Your task to perform on an android device: turn off airplane mode Image 0: 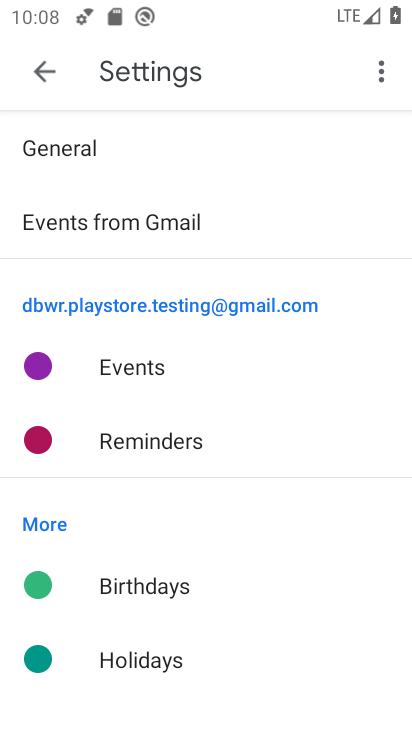
Step 0: press home button
Your task to perform on an android device: turn off airplane mode Image 1: 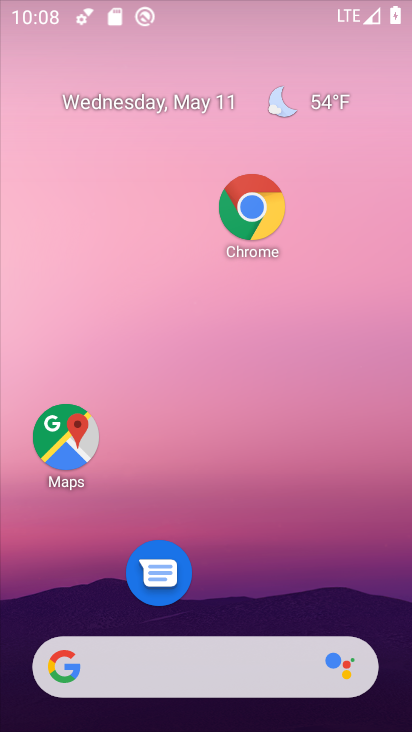
Step 1: drag from (178, 674) to (186, 0)
Your task to perform on an android device: turn off airplane mode Image 2: 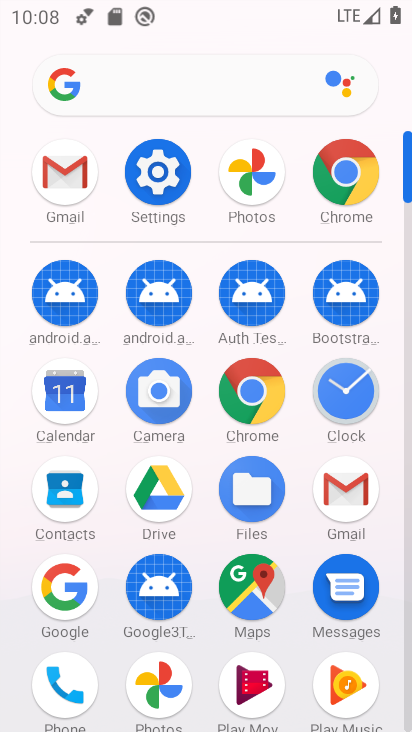
Step 2: click (162, 160)
Your task to perform on an android device: turn off airplane mode Image 3: 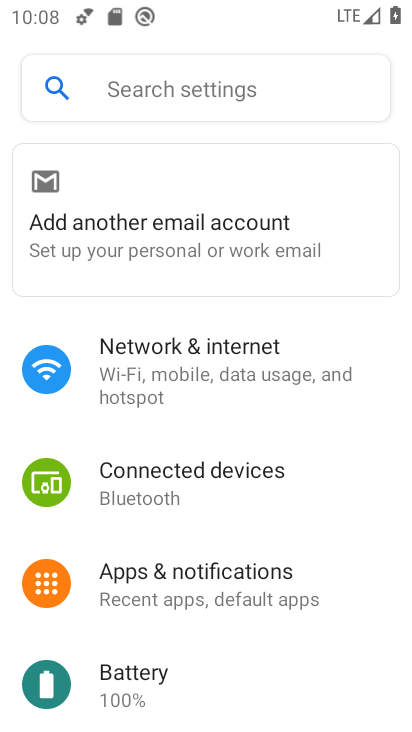
Step 3: click (233, 379)
Your task to perform on an android device: turn off airplane mode Image 4: 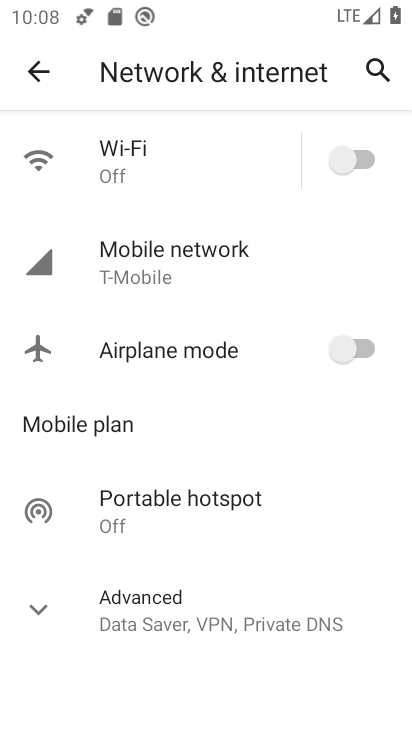
Step 4: task complete